Your task to perform on an android device: install app "Google Calendar" Image 0: 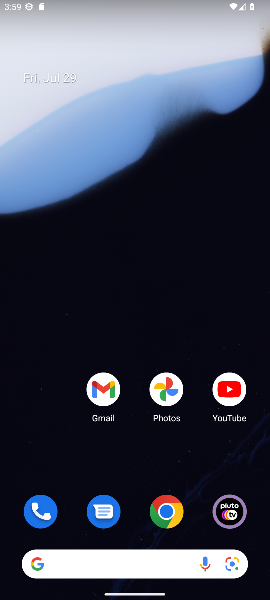
Step 0: drag from (138, 536) to (187, 82)
Your task to perform on an android device: install app "Google Calendar" Image 1: 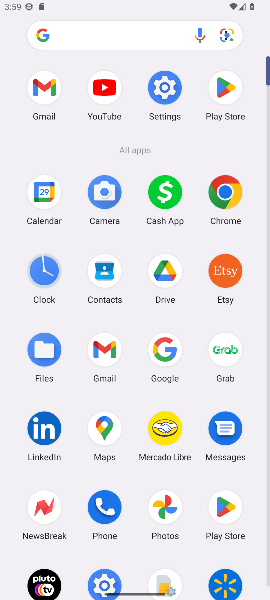
Step 1: click (218, 97)
Your task to perform on an android device: install app "Google Calendar" Image 2: 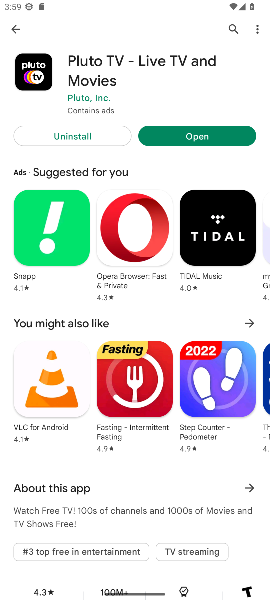
Step 2: click (12, 33)
Your task to perform on an android device: install app "Google Calendar" Image 3: 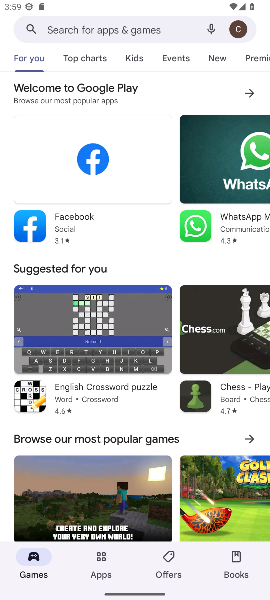
Step 3: click (72, 27)
Your task to perform on an android device: install app "Google Calendar" Image 4: 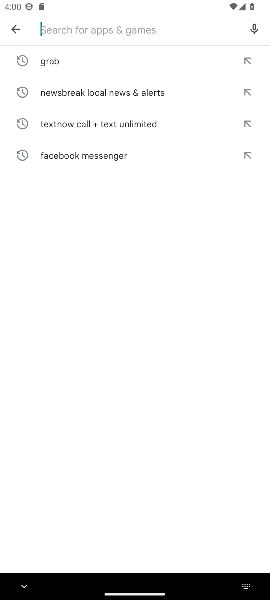
Step 4: type "Google Calendar"
Your task to perform on an android device: install app "Google Calendar" Image 5: 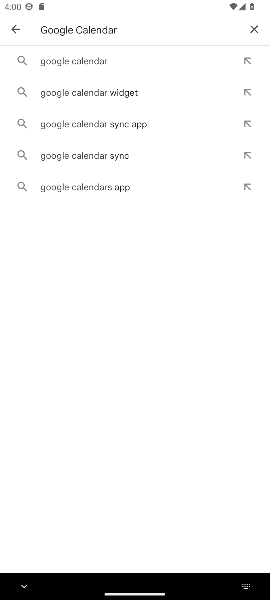
Step 5: click (81, 61)
Your task to perform on an android device: install app "Google Calendar" Image 6: 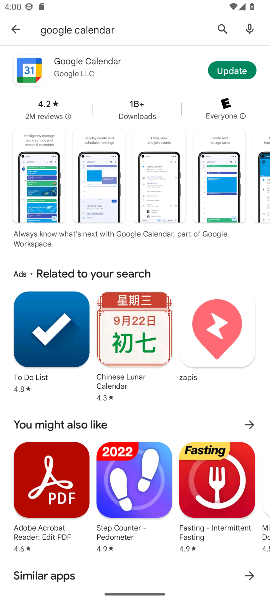
Step 6: task complete